Your task to perform on an android device: see tabs open on other devices in the chrome app Image 0: 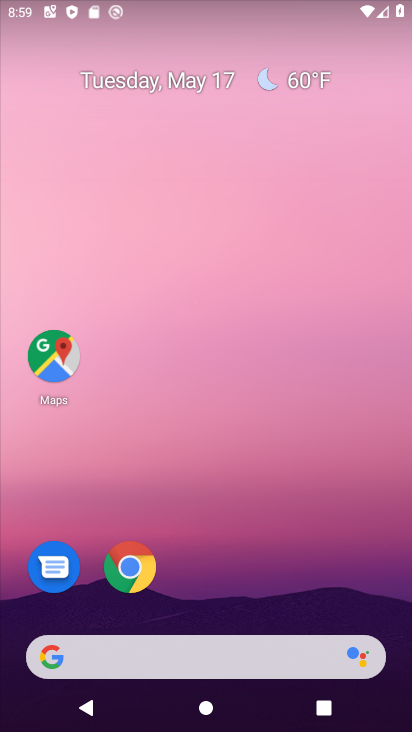
Step 0: click (133, 570)
Your task to perform on an android device: see tabs open on other devices in the chrome app Image 1: 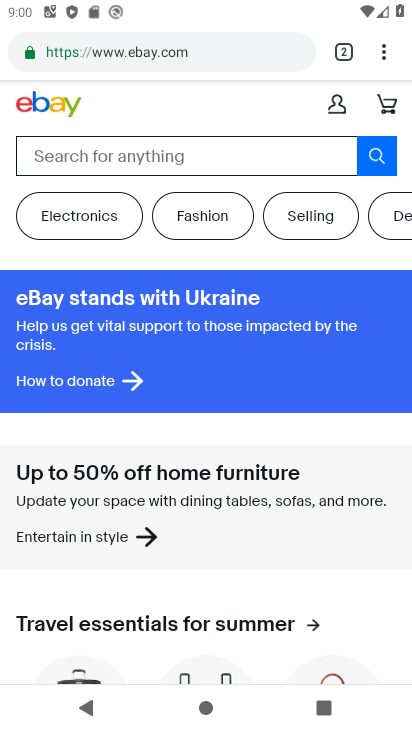
Step 1: click (382, 49)
Your task to perform on an android device: see tabs open on other devices in the chrome app Image 2: 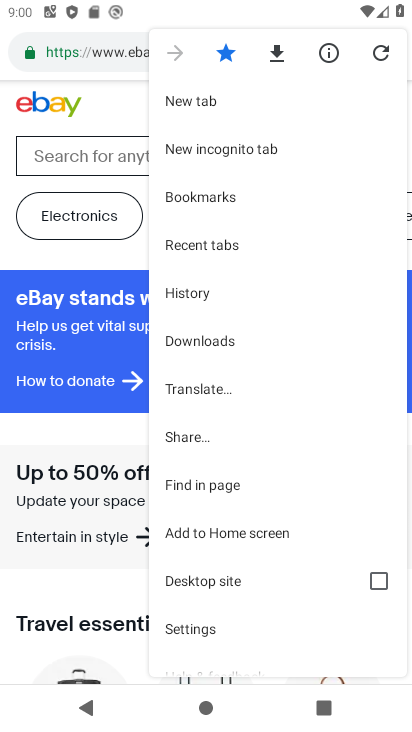
Step 2: click (218, 241)
Your task to perform on an android device: see tabs open on other devices in the chrome app Image 3: 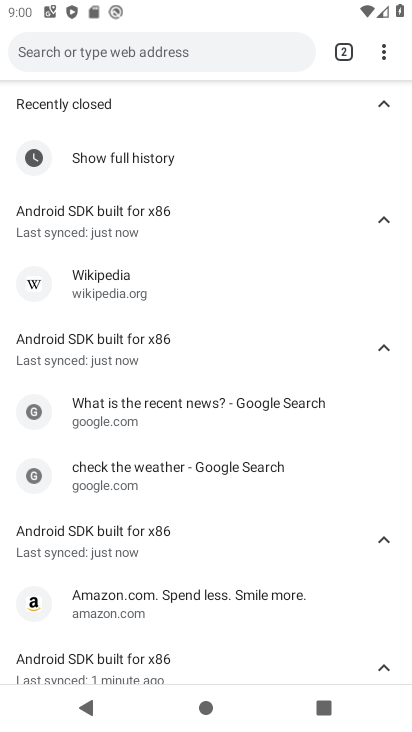
Step 3: task complete